Your task to perform on an android device: turn off picture-in-picture Image 0: 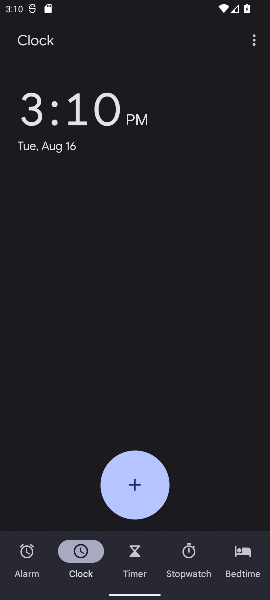
Step 0: press home button
Your task to perform on an android device: turn off picture-in-picture Image 1: 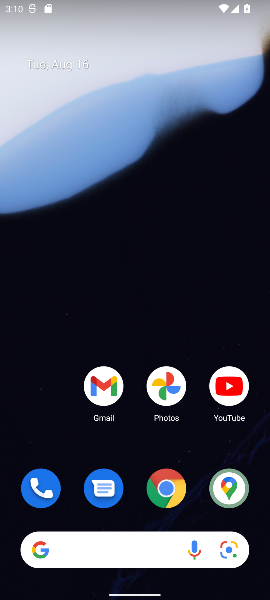
Step 1: task complete